Your task to perform on an android device: refresh tabs in the chrome app Image 0: 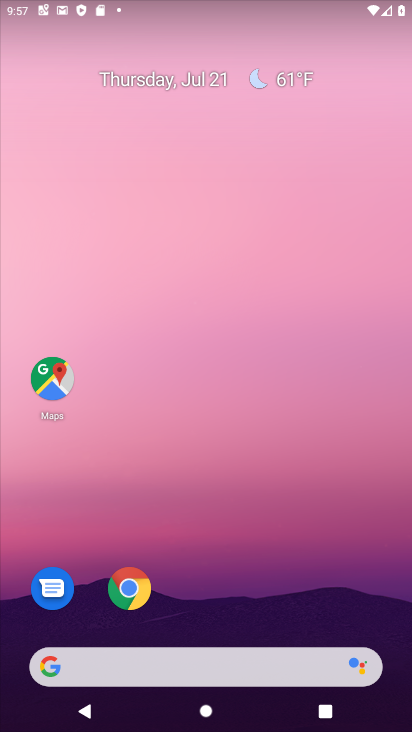
Step 0: click (128, 592)
Your task to perform on an android device: refresh tabs in the chrome app Image 1: 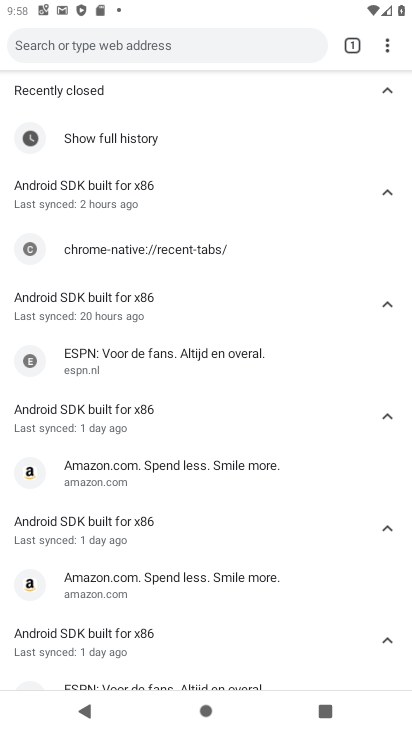
Step 1: click (383, 48)
Your task to perform on an android device: refresh tabs in the chrome app Image 2: 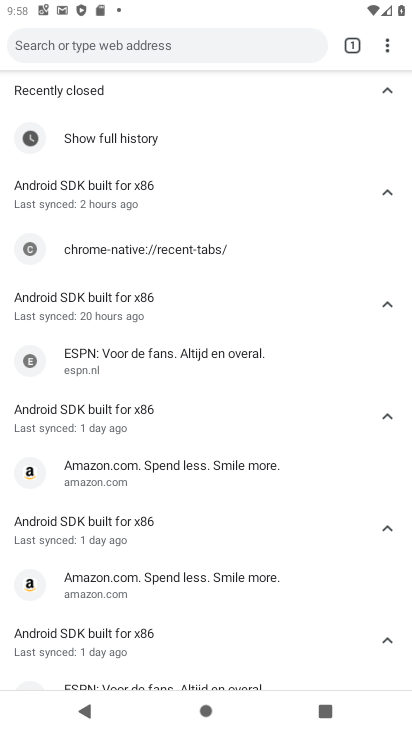
Step 2: task complete